Your task to perform on an android device: Is it going to rain today? Image 0: 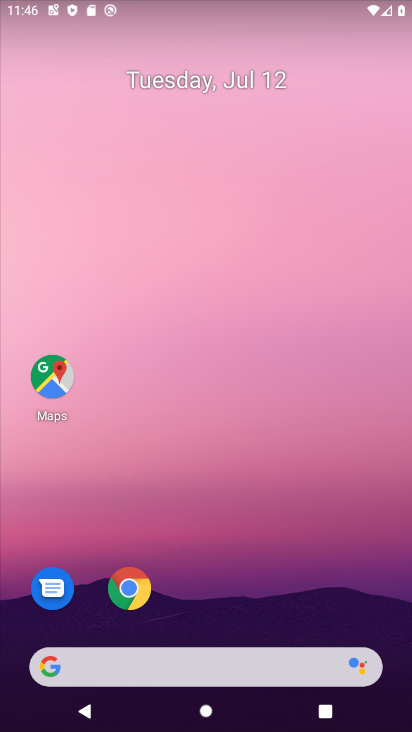
Step 0: drag from (3, 212) to (411, 245)
Your task to perform on an android device: Is it going to rain today? Image 1: 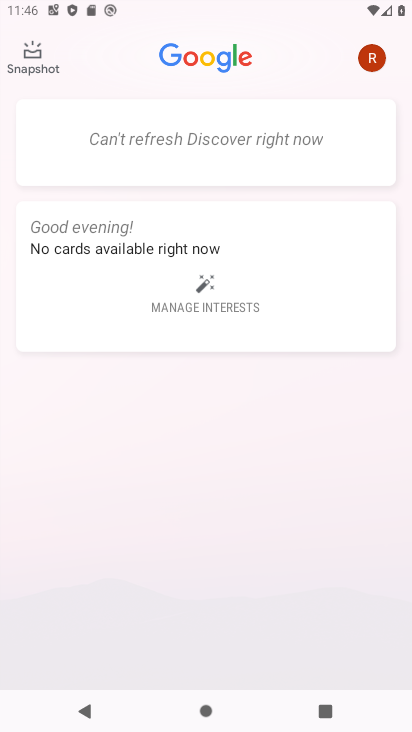
Step 1: task complete